Your task to perform on an android device: refresh tabs in the chrome app Image 0: 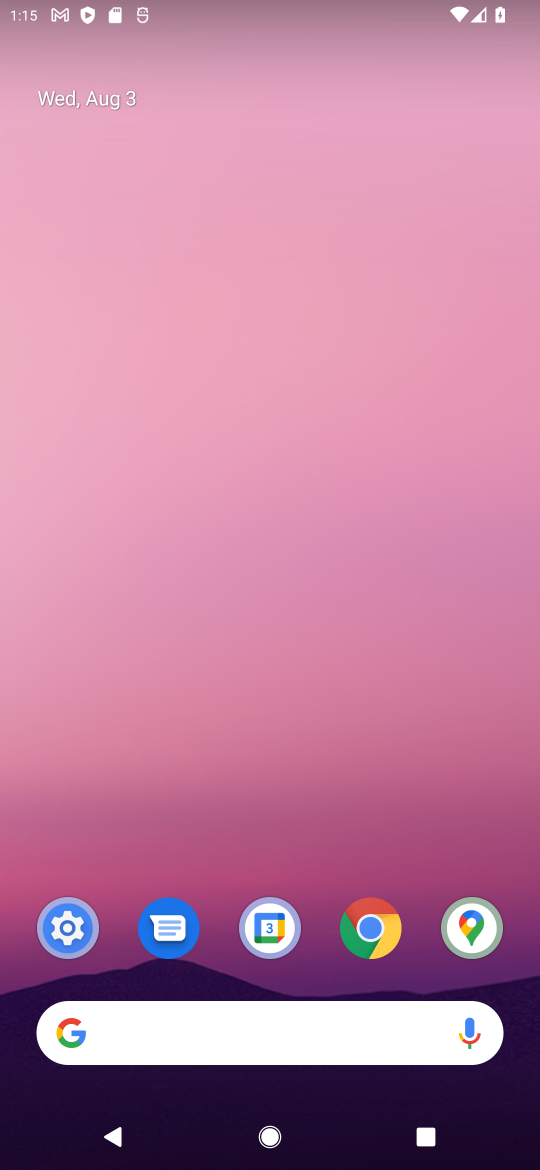
Step 0: click (393, 939)
Your task to perform on an android device: refresh tabs in the chrome app Image 1: 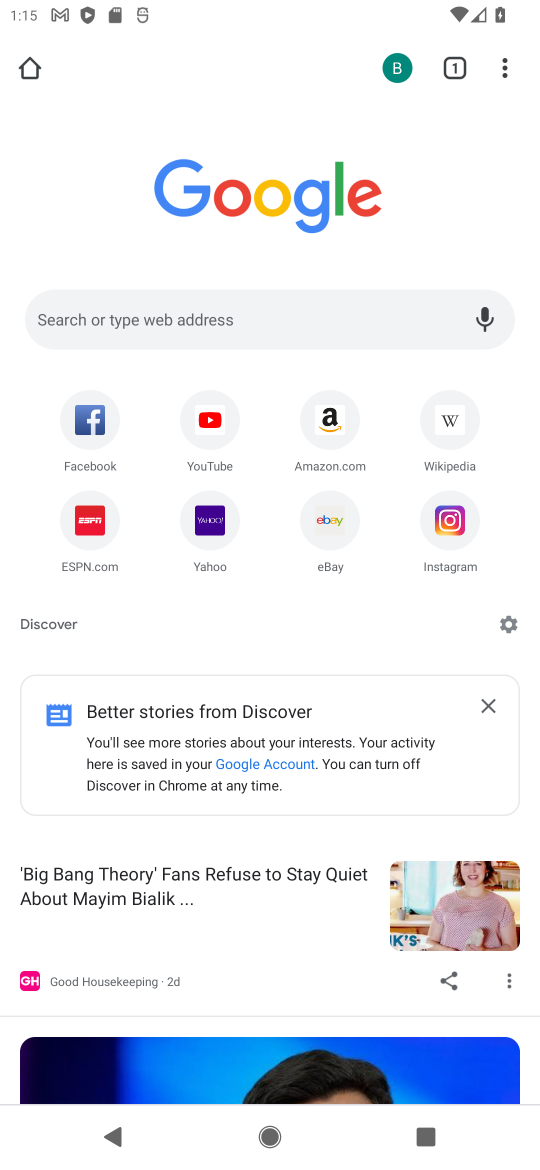
Step 1: click (500, 61)
Your task to perform on an android device: refresh tabs in the chrome app Image 2: 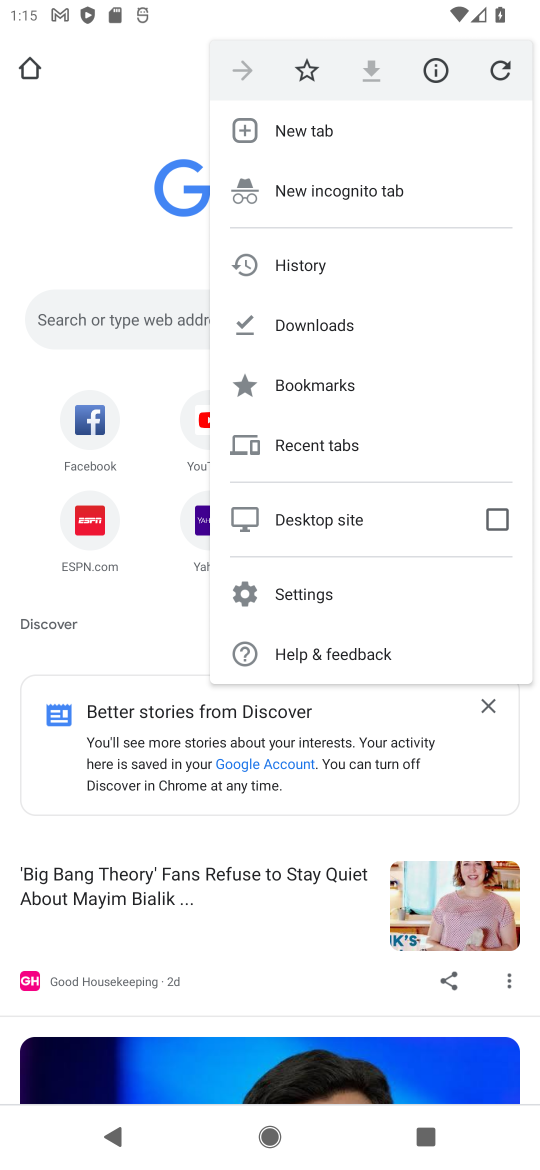
Step 2: click (500, 61)
Your task to perform on an android device: refresh tabs in the chrome app Image 3: 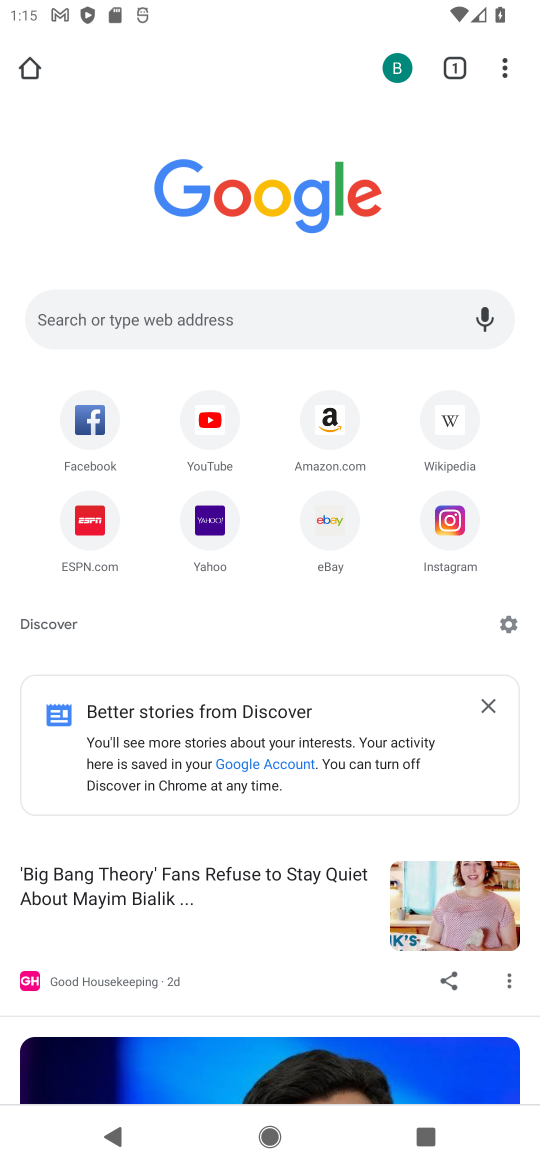
Step 3: task complete